Your task to perform on an android device: Turn on the flashlight Image 0: 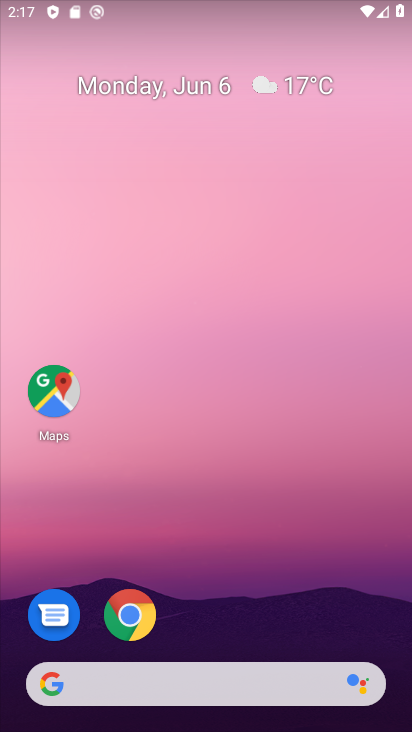
Step 0: drag from (210, 621) to (281, 228)
Your task to perform on an android device: Turn on the flashlight Image 1: 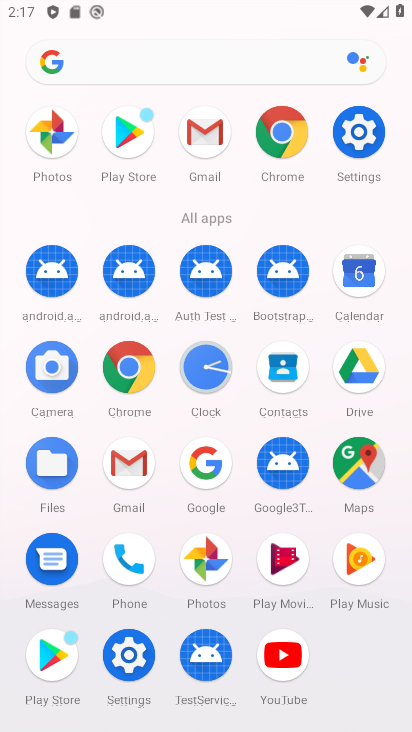
Step 1: click (361, 146)
Your task to perform on an android device: Turn on the flashlight Image 2: 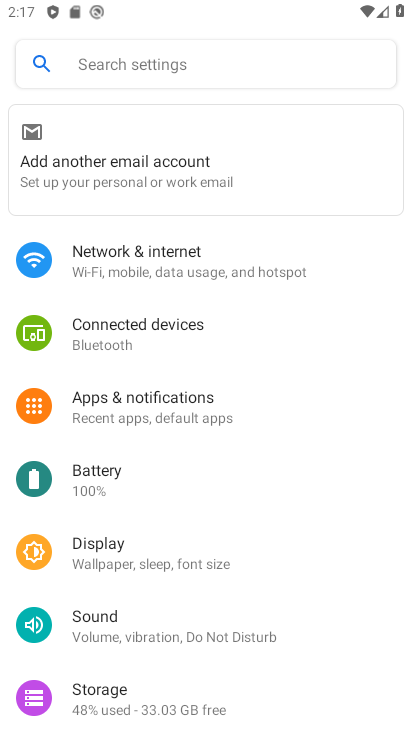
Step 2: click (164, 62)
Your task to perform on an android device: Turn on the flashlight Image 3: 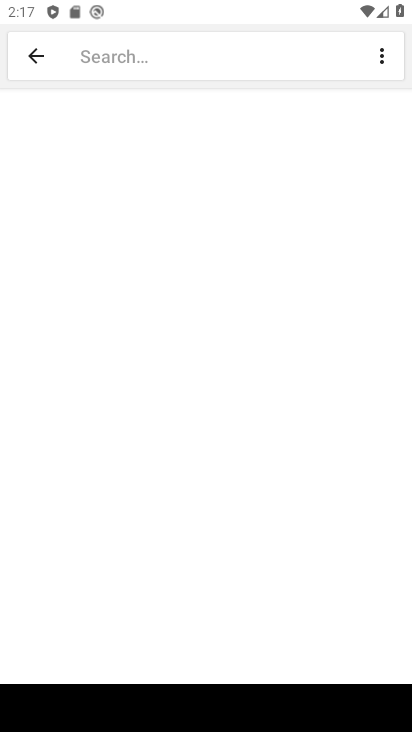
Step 3: type "flashlight"
Your task to perform on an android device: Turn on the flashlight Image 4: 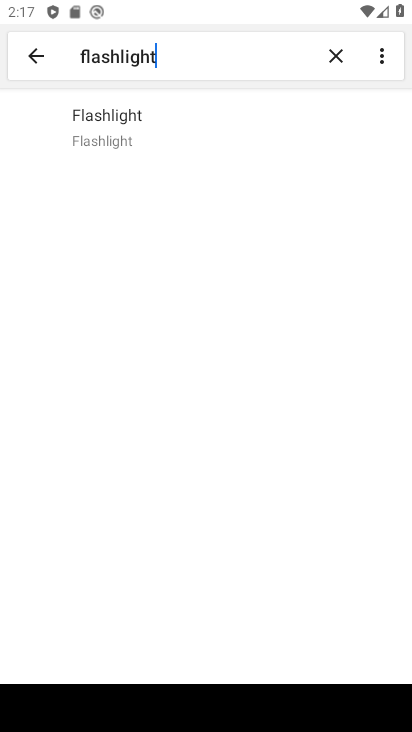
Step 4: click (149, 133)
Your task to perform on an android device: Turn on the flashlight Image 5: 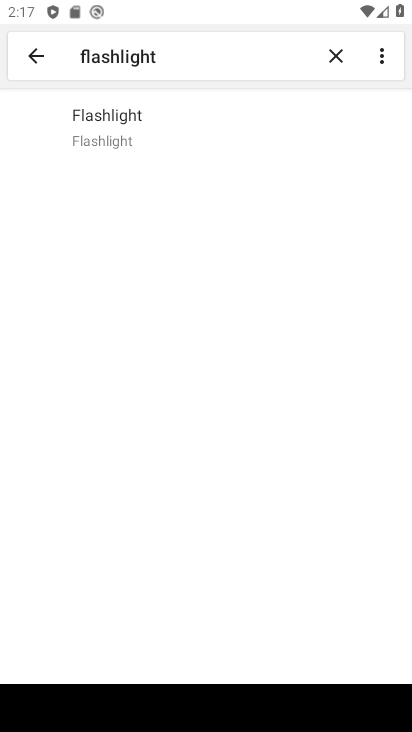
Step 5: click (149, 133)
Your task to perform on an android device: Turn on the flashlight Image 6: 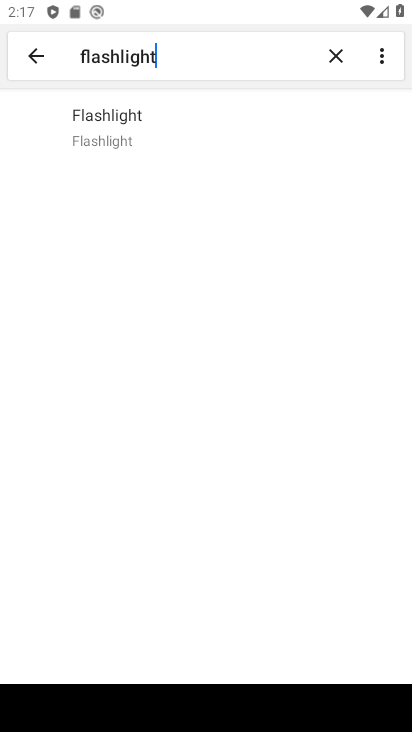
Step 6: task complete